Your task to perform on an android device: turn on airplane mode Image 0: 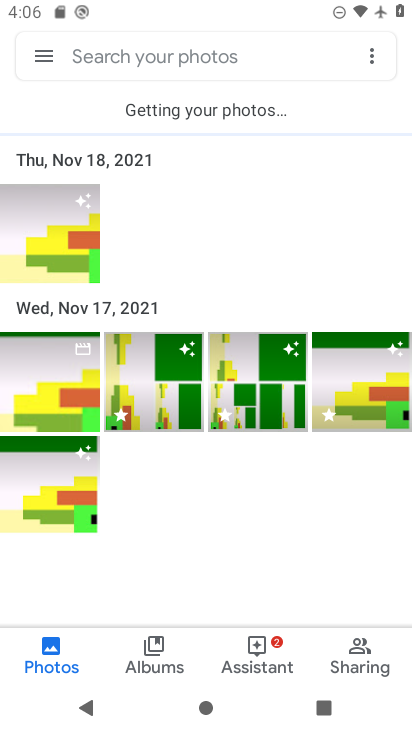
Step 0: press home button
Your task to perform on an android device: turn on airplane mode Image 1: 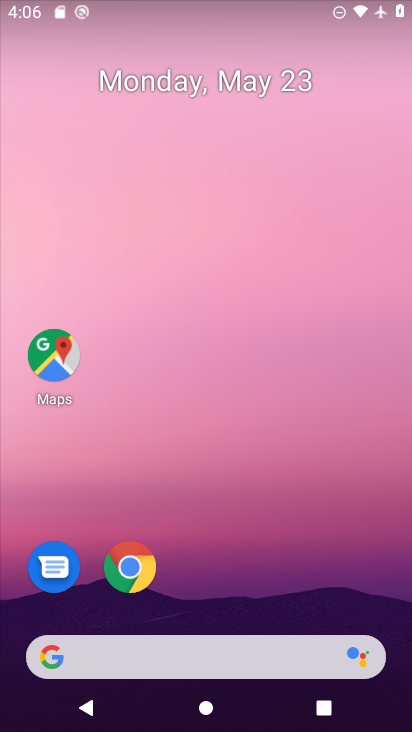
Step 1: drag from (395, 667) to (274, 116)
Your task to perform on an android device: turn on airplane mode Image 2: 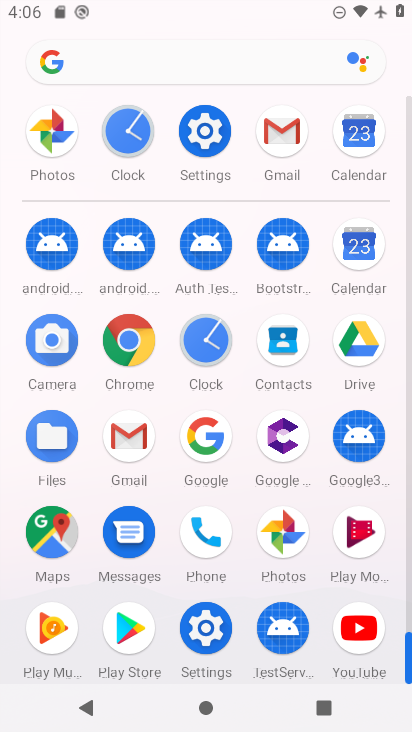
Step 2: click (196, 136)
Your task to perform on an android device: turn on airplane mode Image 3: 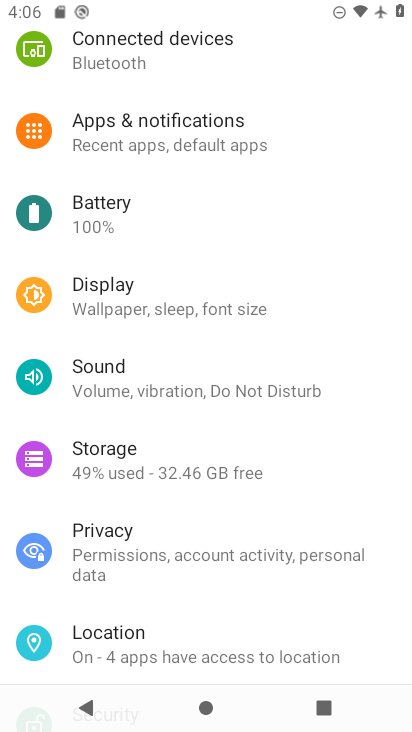
Step 3: drag from (203, 188) to (230, 480)
Your task to perform on an android device: turn on airplane mode Image 4: 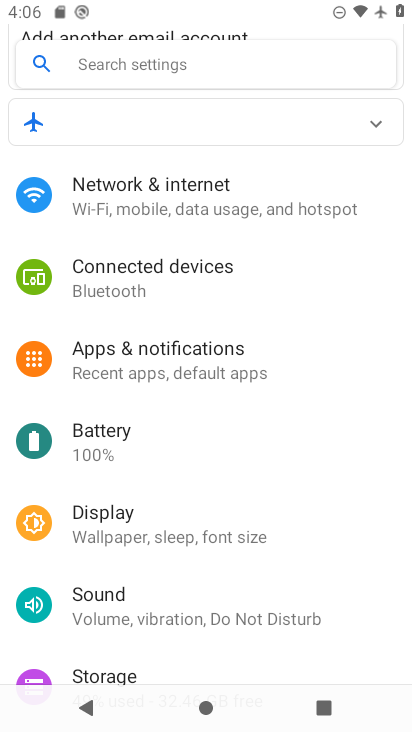
Step 4: click (205, 205)
Your task to perform on an android device: turn on airplane mode Image 5: 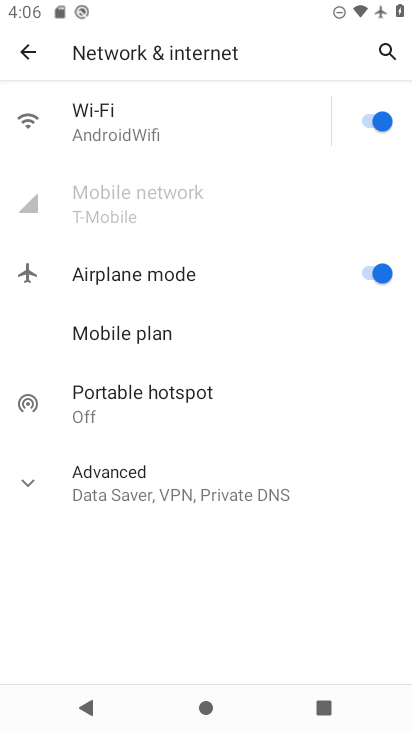
Step 5: task complete